Your task to perform on an android device: toggle wifi Image 0: 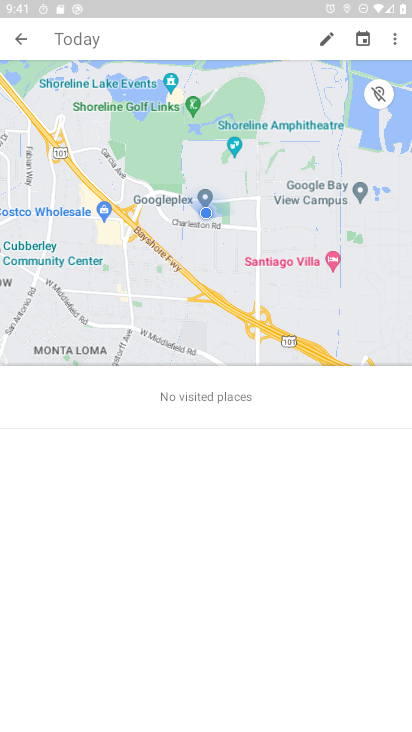
Step 0: press home button
Your task to perform on an android device: toggle wifi Image 1: 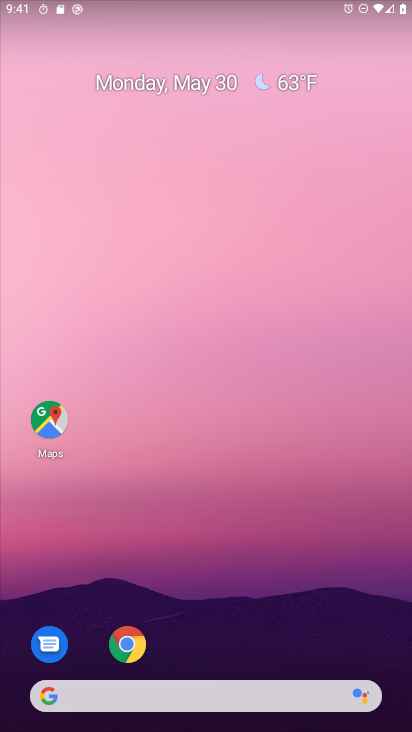
Step 1: drag from (263, 656) to (270, 0)
Your task to perform on an android device: toggle wifi Image 2: 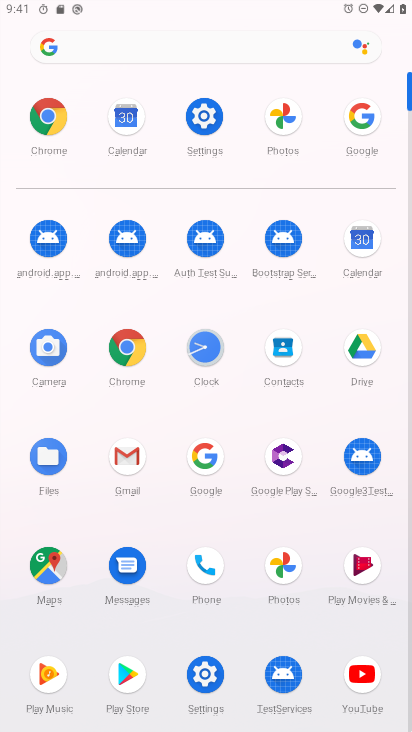
Step 2: click (202, 114)
Your task to perform on an android device: toggle wifi Image 3: 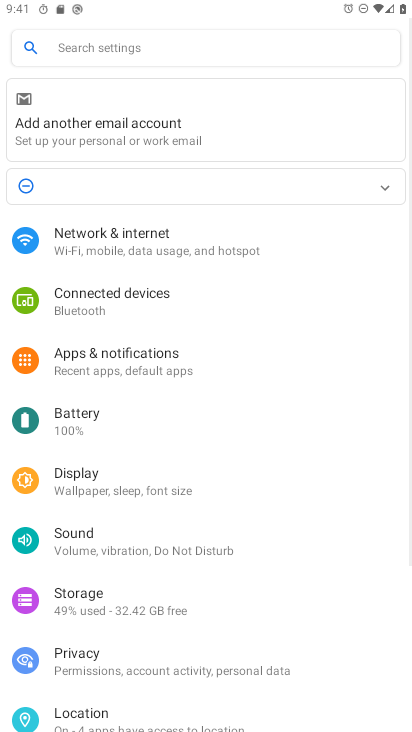
Step 3: click (168, 244)
Your task to perform on an android device: toggle wifi Image 4: 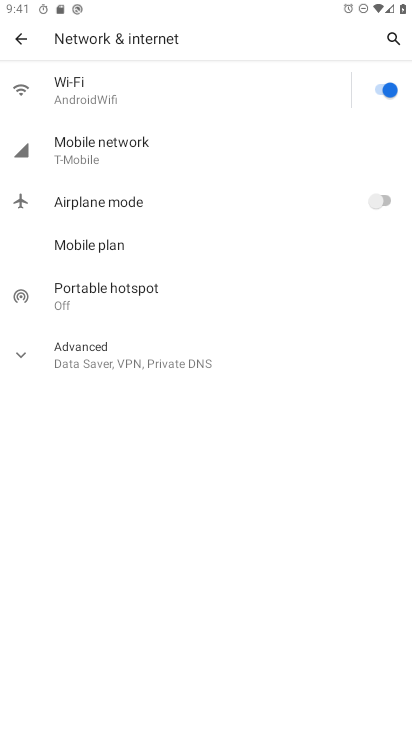
Step 4: click (389, 83)
Your task to perform on an android device: toggle wifi Image 5: 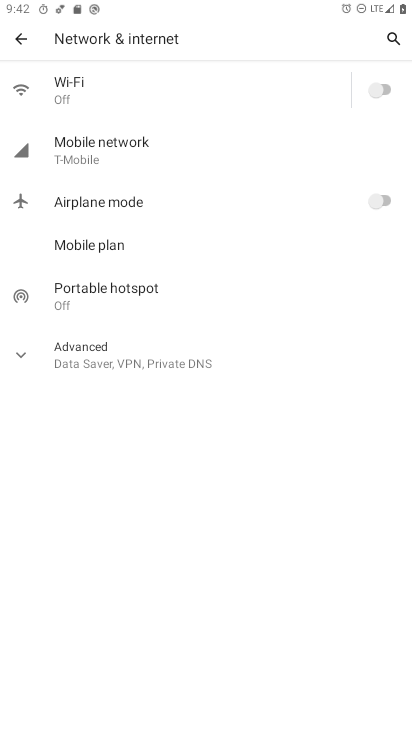
Step 5: task complete